Your task to perform on an android device: turn on wifi Image 0: 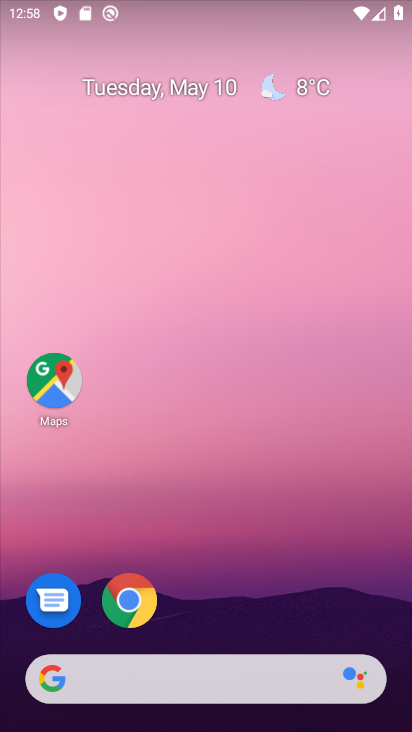
Step 0: press home button
Your task to perform on an android device: turn on wifi Image 1: 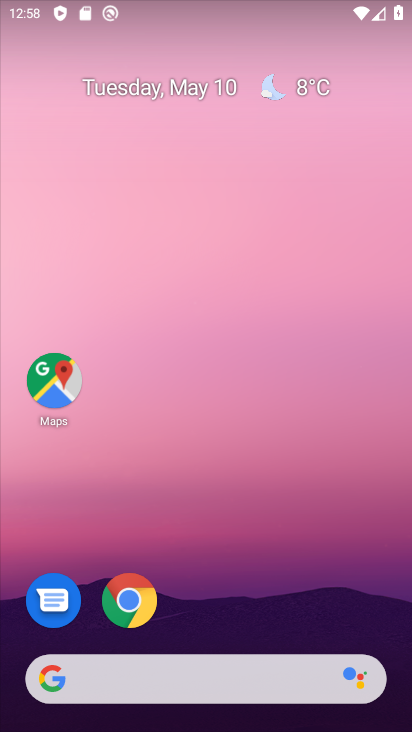
Step 1: drag from (141, 678) to (326, 86)
Your task to perform on an android device: turn on wifi Image 2: 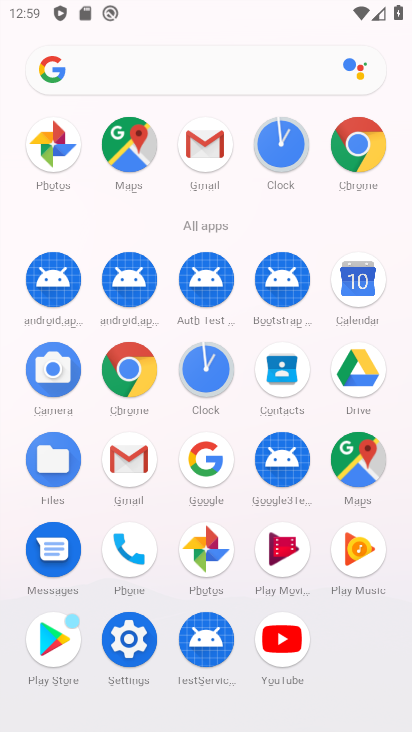
Step 2: click (136, 653)
Your task to perform on an android device: turn on wifi Image 3: 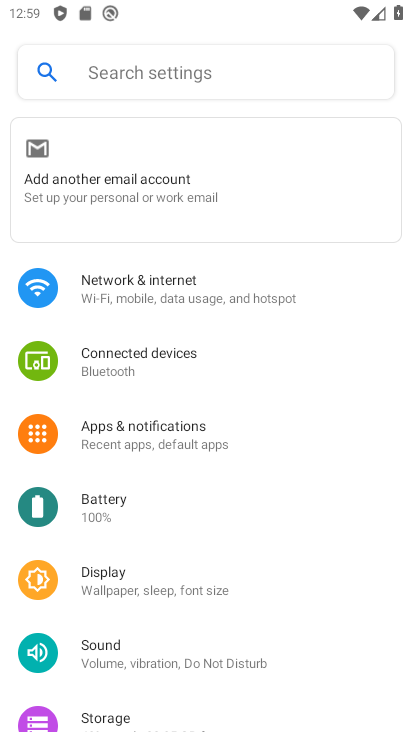
Step 3: click (182, 281)
Your task to perform on an android device: turn on wifi Image 4: 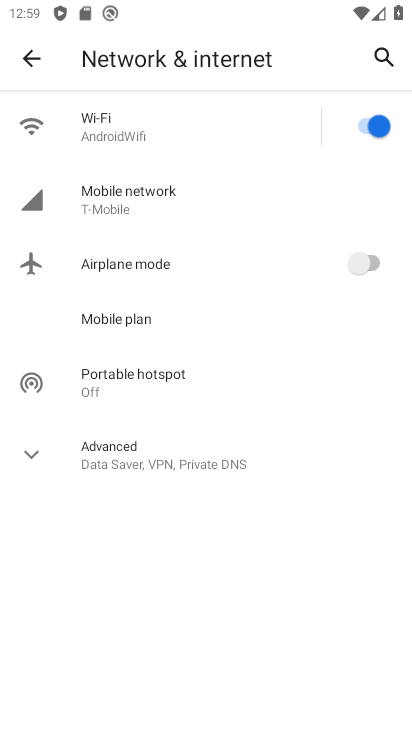
Step 4: task complete